Your task to perform on an android device: Is it going to rain tomorrow? Image 0: 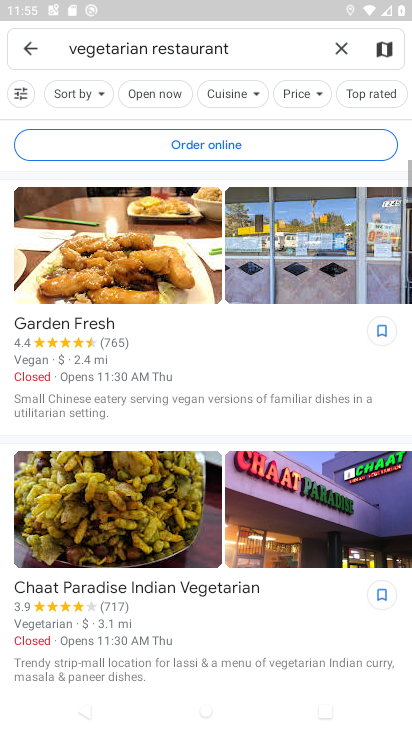
Step 0: press home button
Your task to perform on an android device: Is it going to rain tomorrow? Image 1: 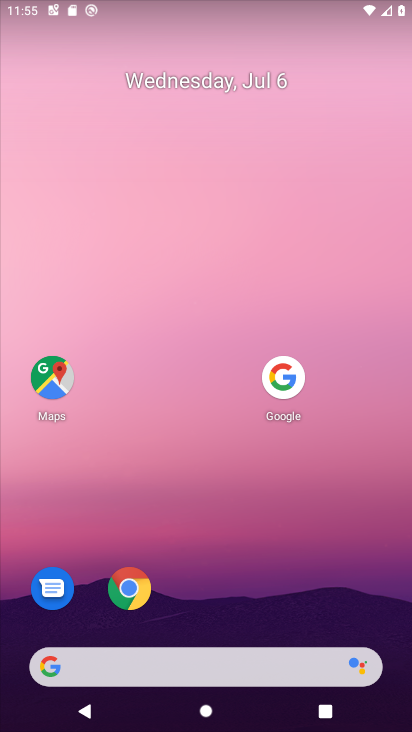
Step 1: click (214, 669)
Your task to perform on an android device: Is it going to rain tomorrow? Image 2: 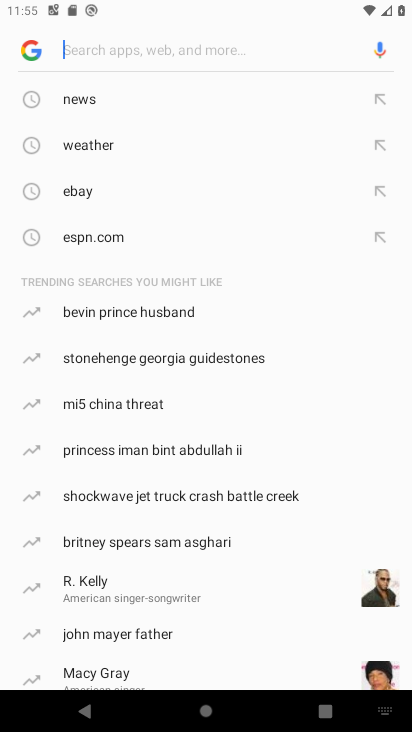
Step 2: click (102, 144)
Your task to perform on an android device: Is it going to rain tomorrow? Image 3: 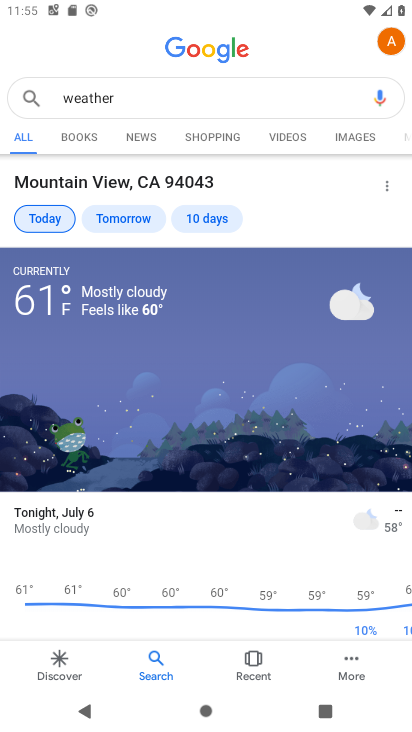
Step 3: click (128, 212)
Your task to perform on an android device: Is it going to rain tomorrow? Image 4: 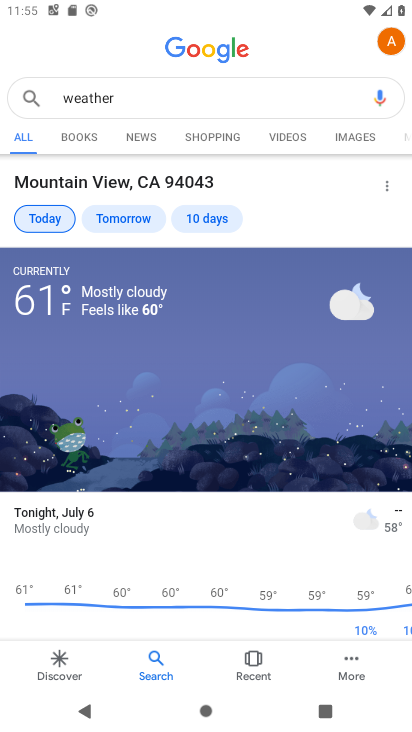
Step 4: click (108, 215)
Your task to perform on an android device: Is it going to rain tomorrow? Image 5: 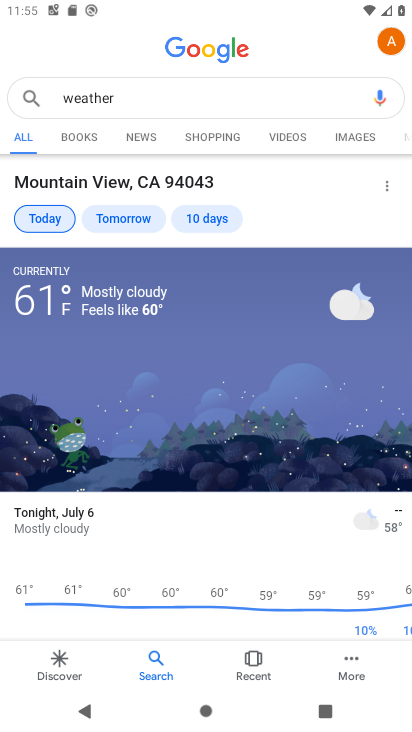
Step 5: click (126, 220)
Your task to perform on an android device: Is it going to rain tomorrow? Image 6: 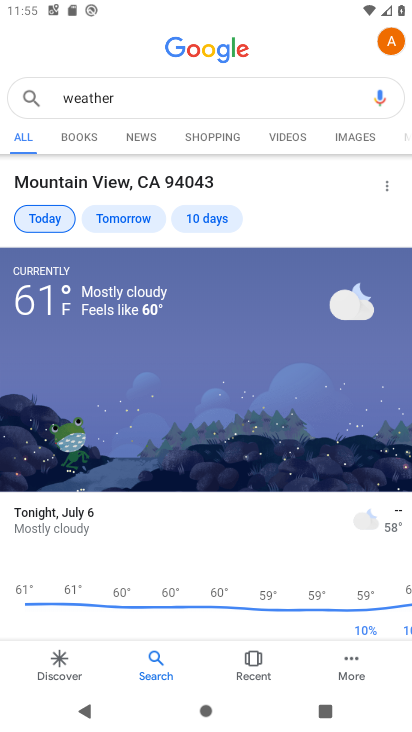
Step 6: click (126, 221)
Your task to perform on an android device: Is it going to rain tomorrow? Image 7: 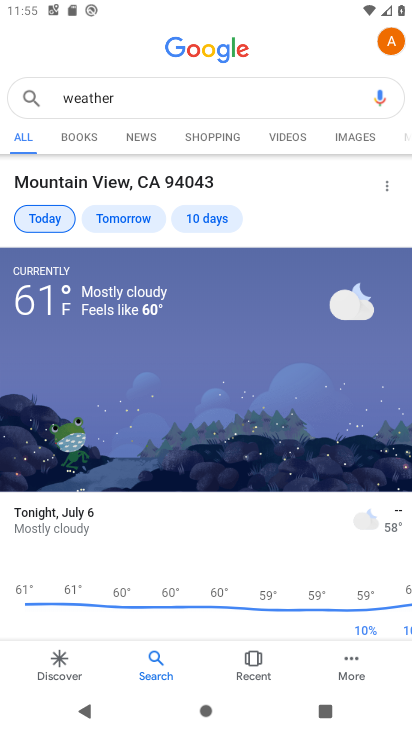
Step 7: click (126, 217)
Your task to perform on an android device: Is it going to rain tomorrow? Image 8: 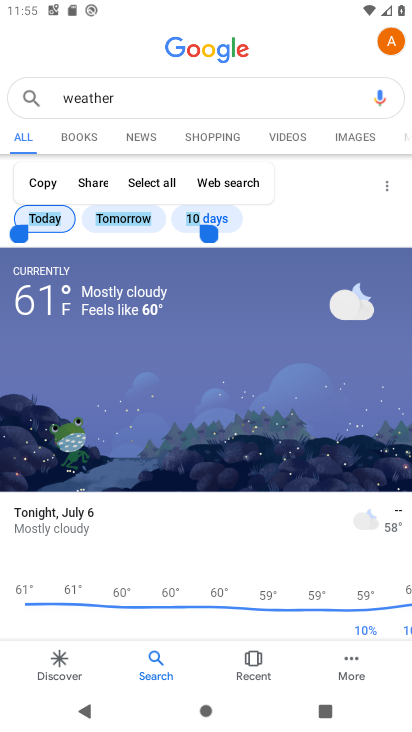
Step 8: click (123, 216)
Your task to perform on an android device: Is it going to rain tomorrow? Image 9: 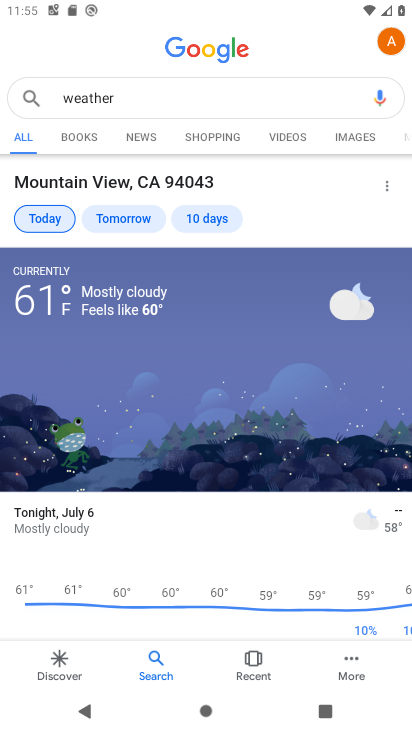
Step 9: task complete